Your task to perform on an android device: turn off improve location accuracy Image 0: 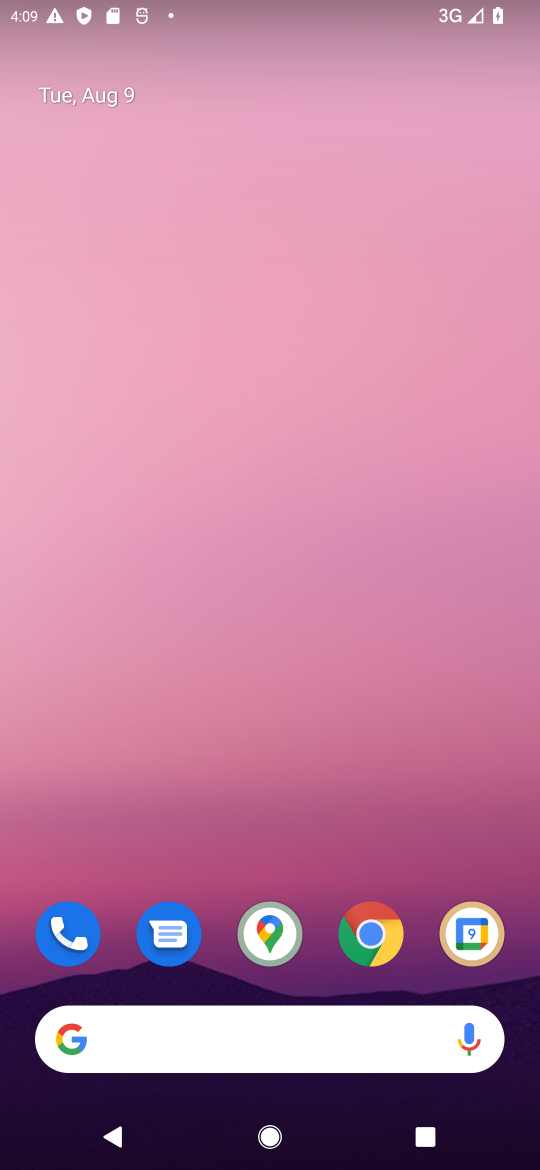
Step 0: drag from (319, 998) to (303, 99)
Your task to perform on an android device: turn off improve location accuracy Image 1: 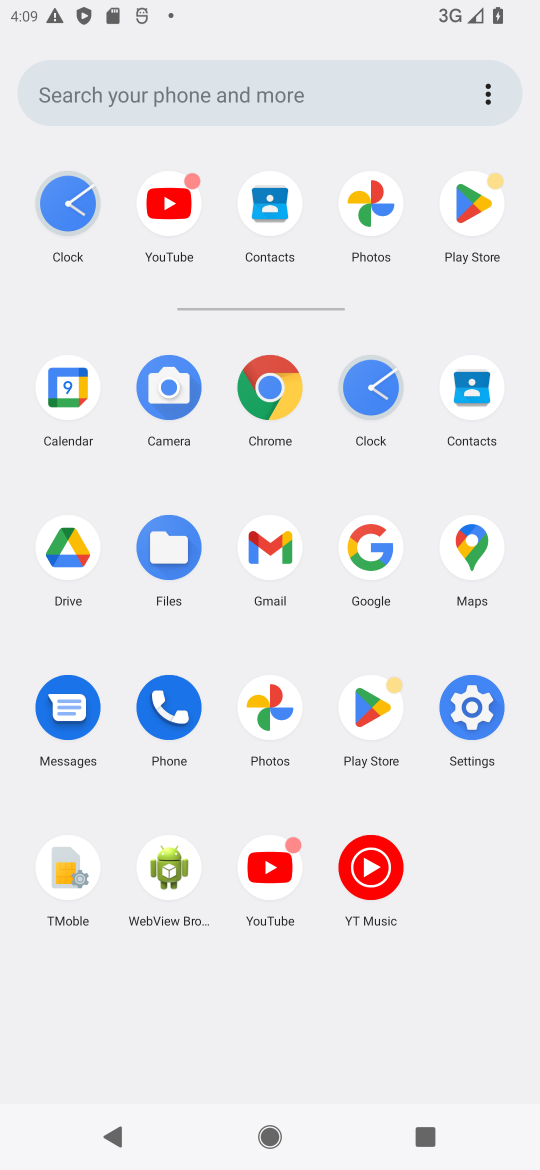
Step 1: click (445, 732)
Your task to perform on an android device: turn off improve location accuracy Image 2: 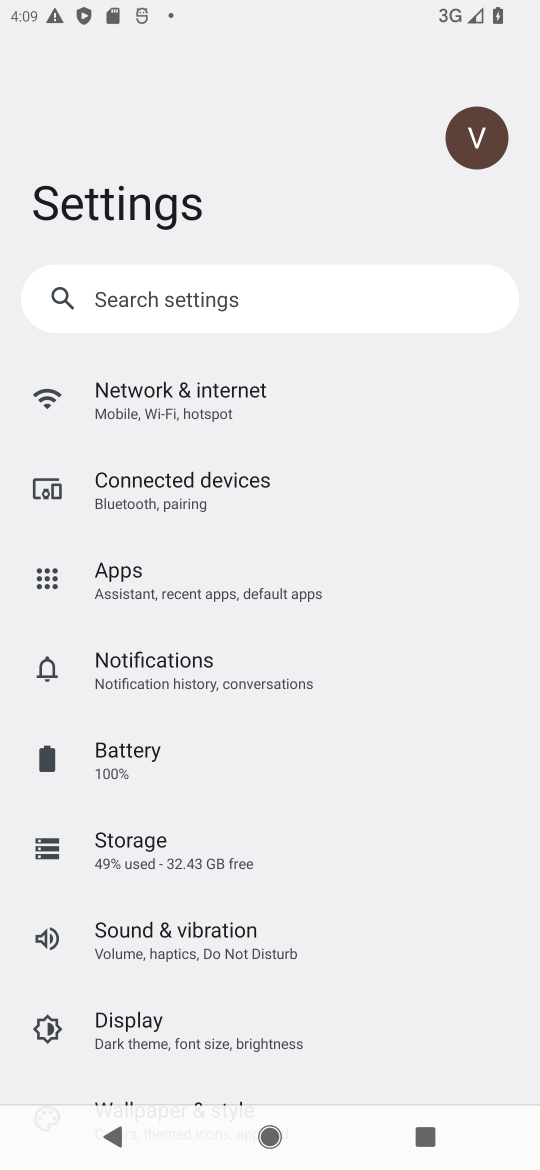
Step 2: drag from (236, 966) to (288, 231)
Your task to perform on an android device: turn off improve location accuracy Image 3: 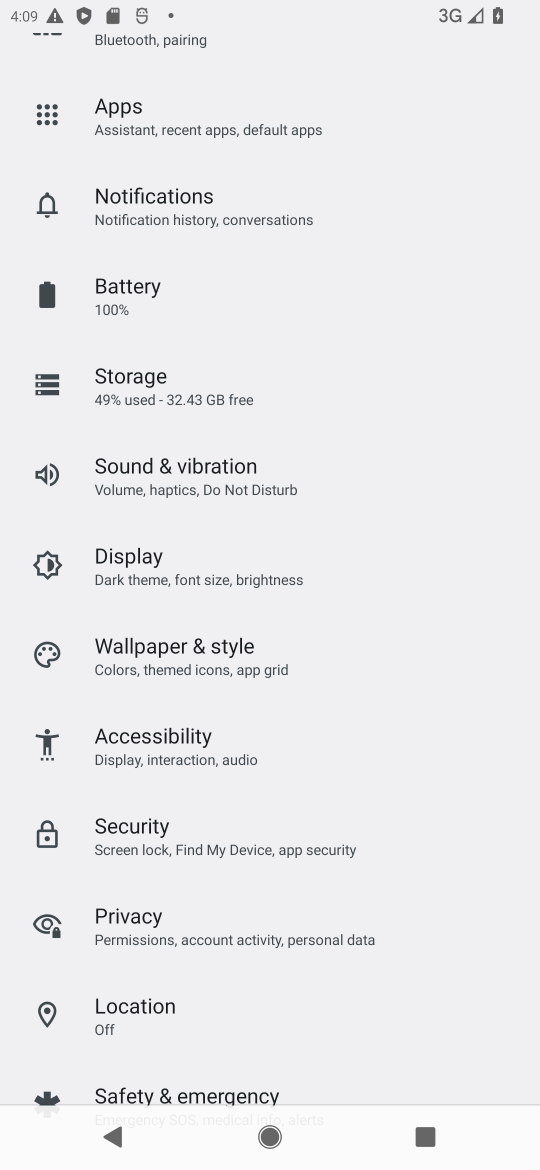
Step 3: click (142, 1037)
Your task to perform on an android device: turn off improve location accuracy Image 4: 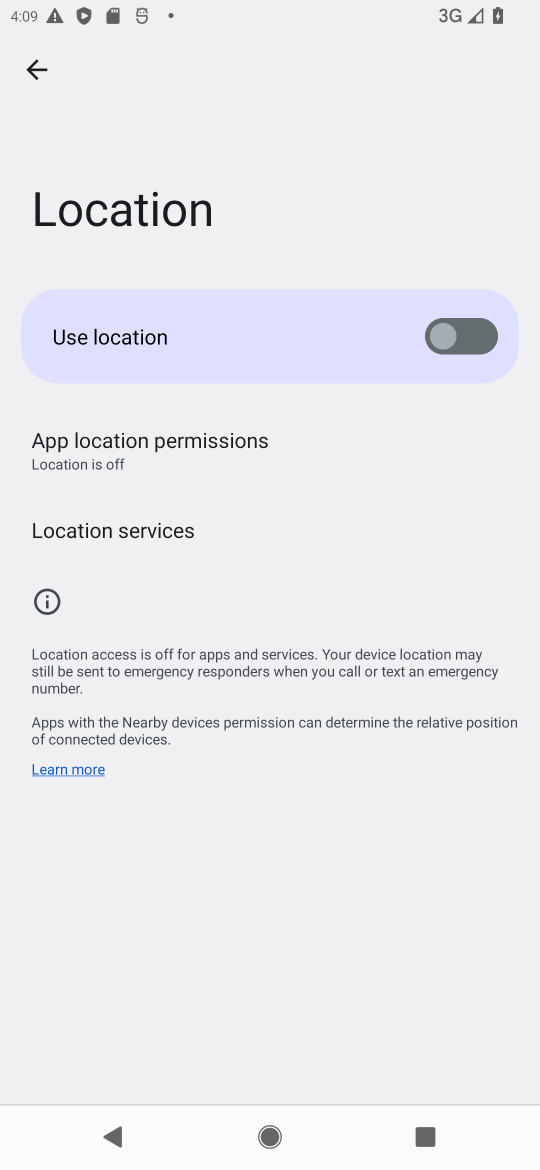
Step 4: task complete